Your task to perform on an android device: Open settings on Google Maps Image 0: 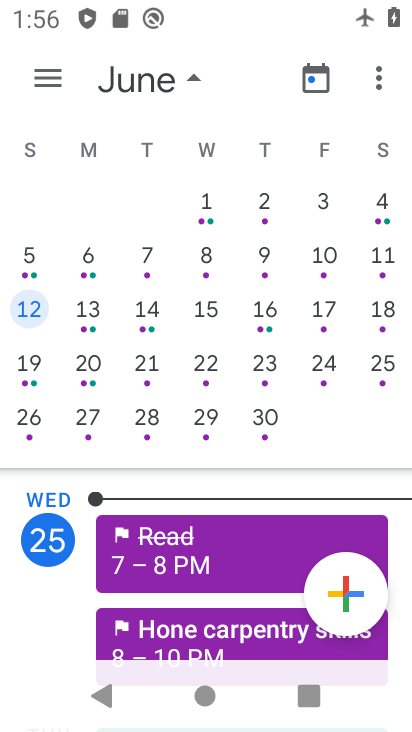
Step 0: press home button
Your task to perform on an android device: Open settings on Google Maps Image 1: 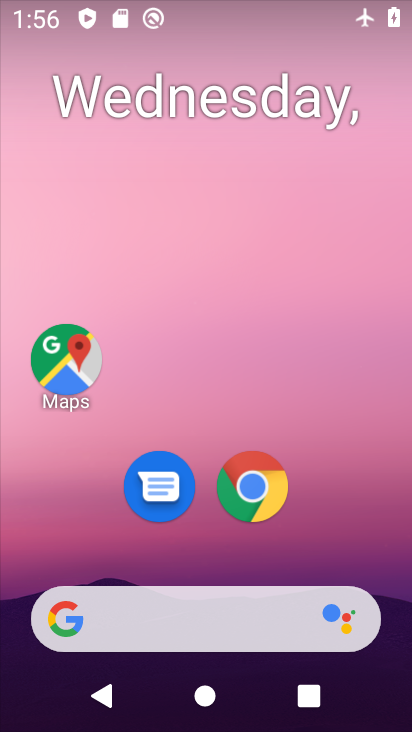
Step 1: click (48, 352)
Your task to perform on an android device: Open settings on Google Maps Image 2: 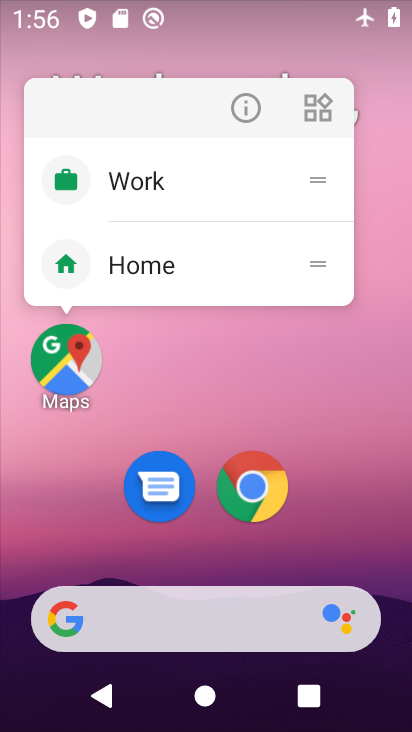
Step 2: click (48, 352)
Your task to perform on an android device: Open settings on Google Maps Image 3: 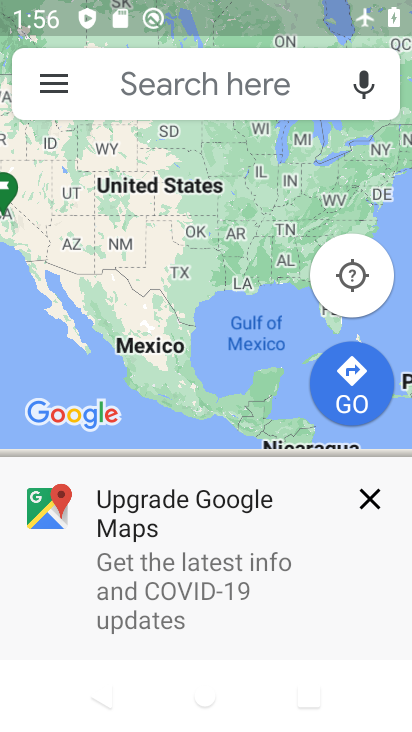
Step 3: click (69, 85)
Your task to perform on an android device: Open settings on Google Maps Image 4: 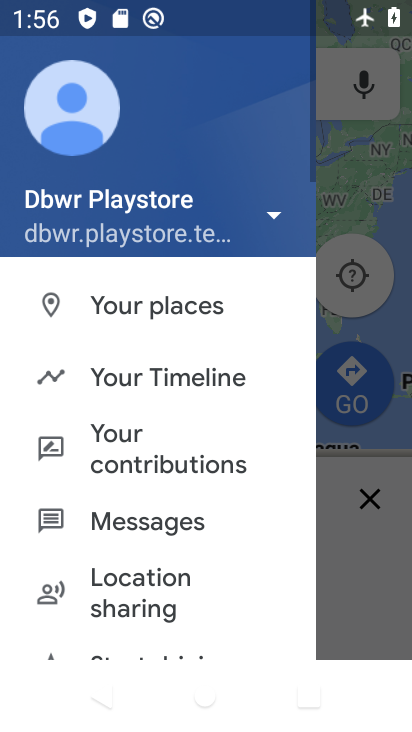
Step 4: drag from (140, 659) to (181, 151)
Your task to perform on an android device: Open settings on Google Maps Image 5: 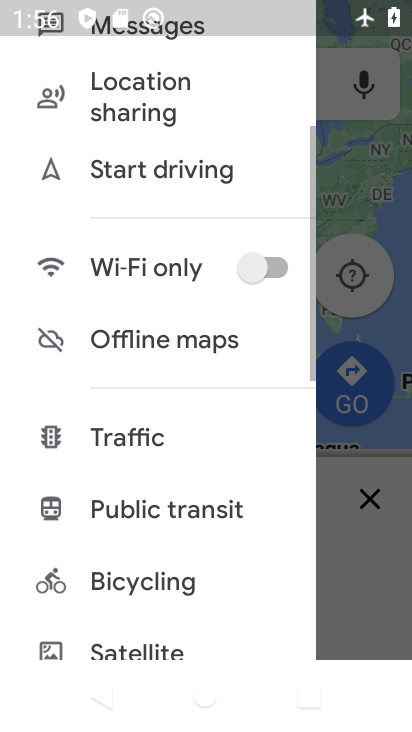
Step 5: drag from (124, 612) to (107, 99)
Your task to perform on an android device: Open settings on Google Maps Image 6: 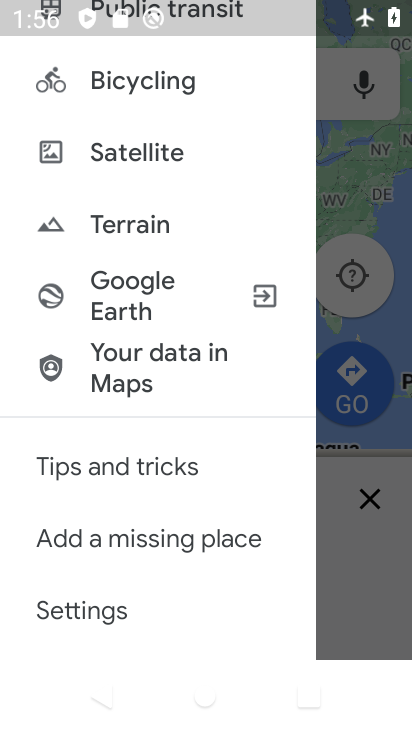
Step 6: click (86, 614)
Your task to perform on an android device: Open settings on Google Maps Image 7: 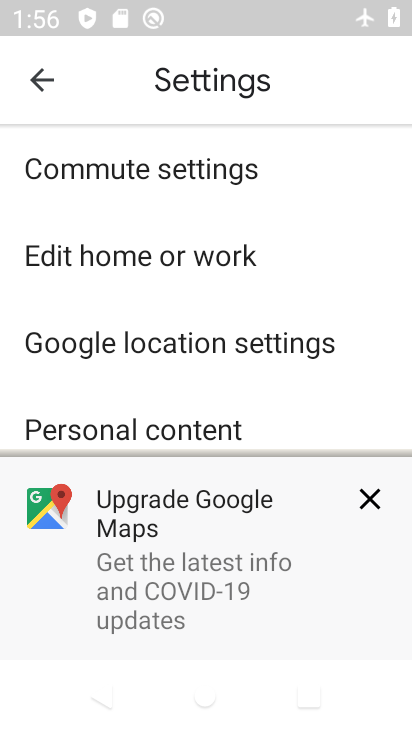
Step 7: task complete